Your task to perform on an android device: Show me recent news Image 0: 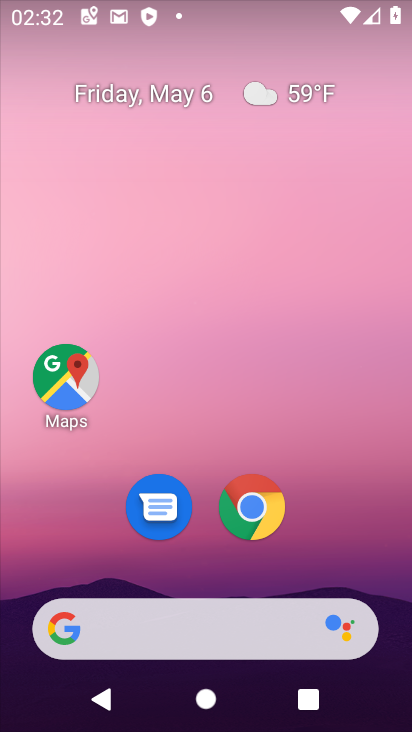
Step 0: click (271, 520)
Your task to perform on an android device: Show me recent news Image 1: 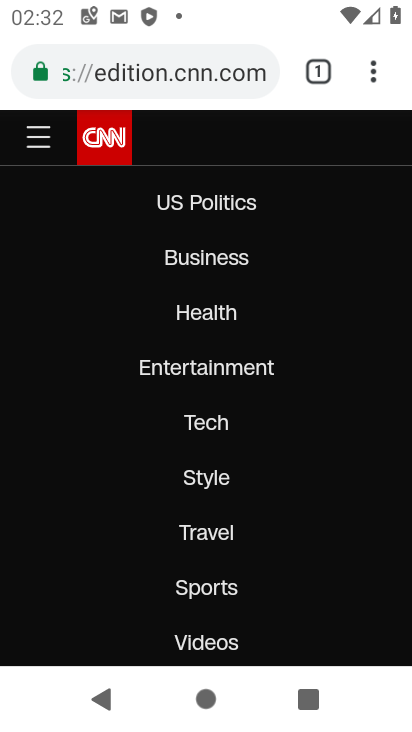
Step 1: click (157, 67)
Your task to perform on an android device: Show me recent news Image 2: 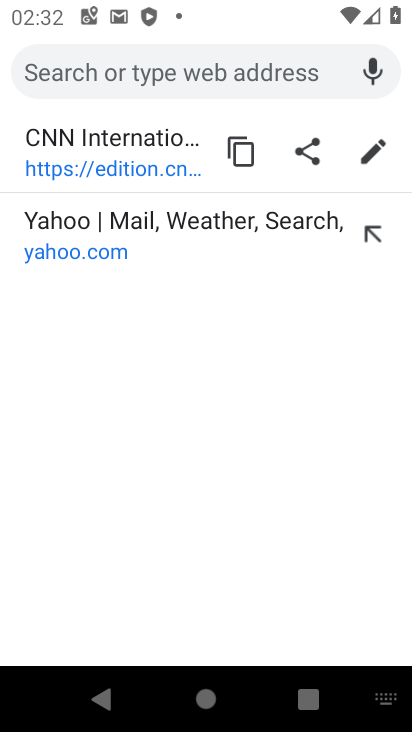
Step 2: type "recent news"
Your task to perform on an android device: Show me recent news Image 3: 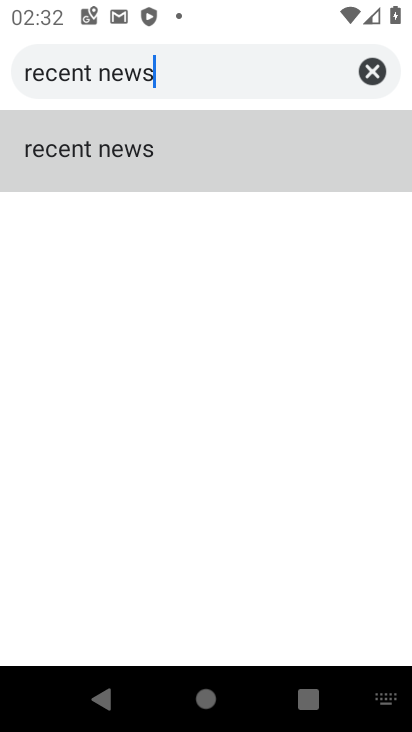
Step 3: click (151, 161)
Your task to perform on an android device: Show me recent news Image 4: 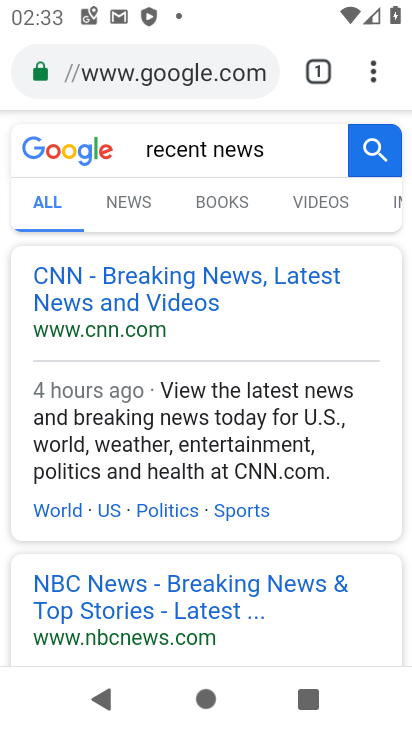
Step 4: click (121, 293)
Your task to perform on an android device: Show me recent news Image 5: 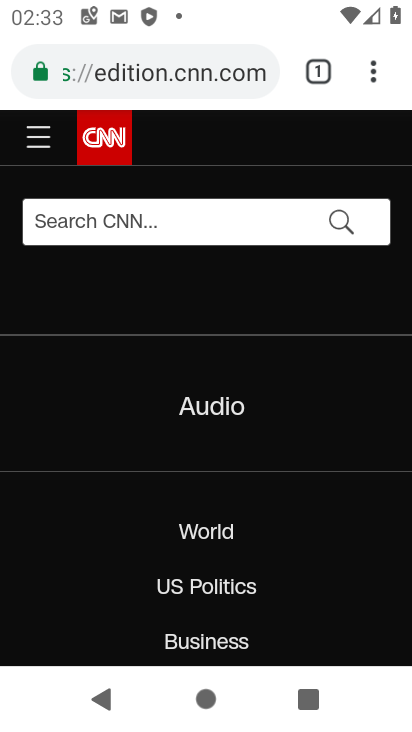
Step 5: task complete